Your task to perform on an android device: open wifi settings Image 0: 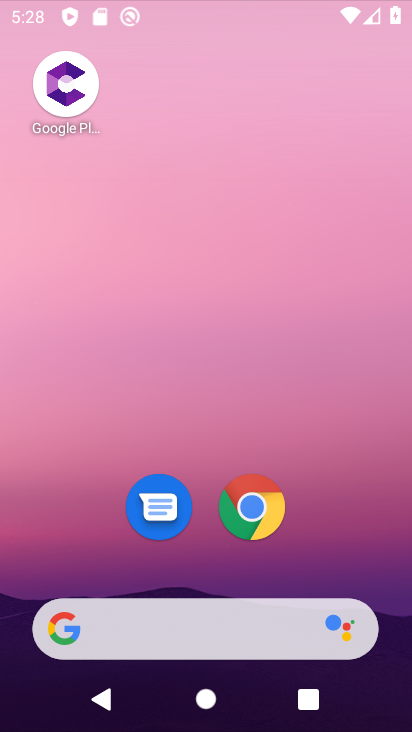
Step 0: press back button
Your task to perform on an android device: open wifi settings Image 1: 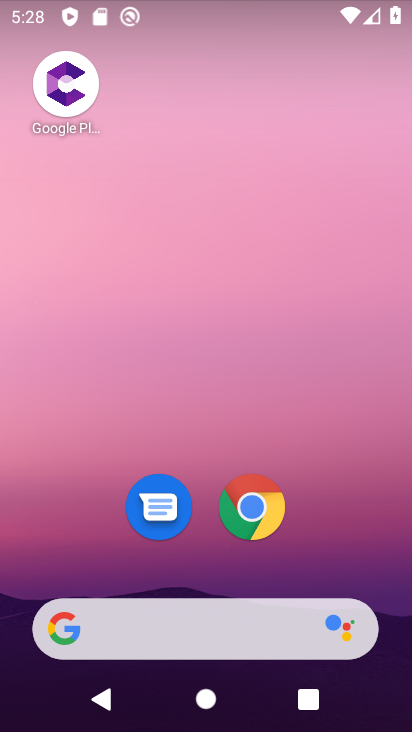
Step 1: drag from (188, 570) to (165, 49)
Your task to perform on an android device: open wifi settings Image 2: 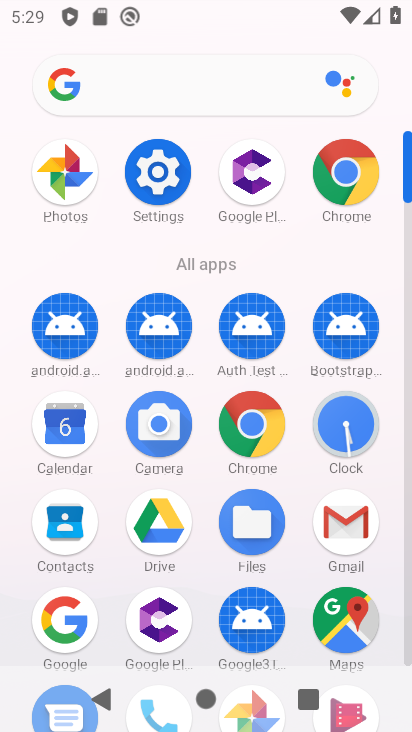
Step 2: click (164, 167)
Your task to perform on an android device: open wifi settings Image 3: 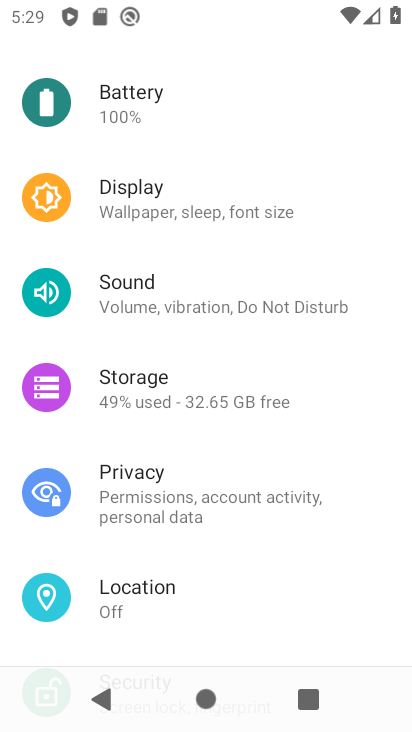
Step 3: drag from (192, 253) to (232, 728)
Your task to perform on an android device: open wifi settings Image 4: 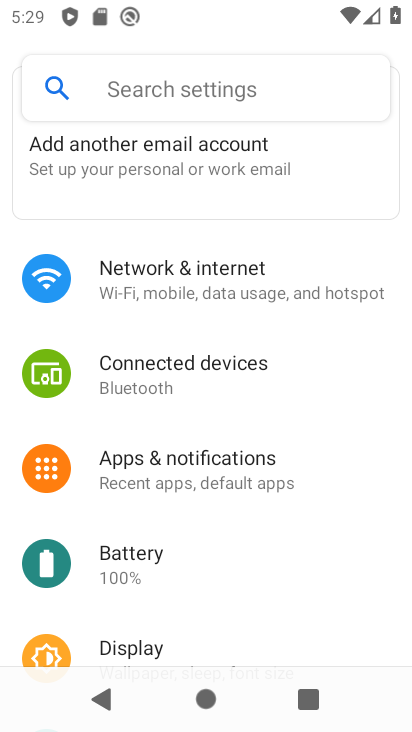
Step 4: click (142, 277)
Your task to perform on an android device: open wifi settings Image 5: 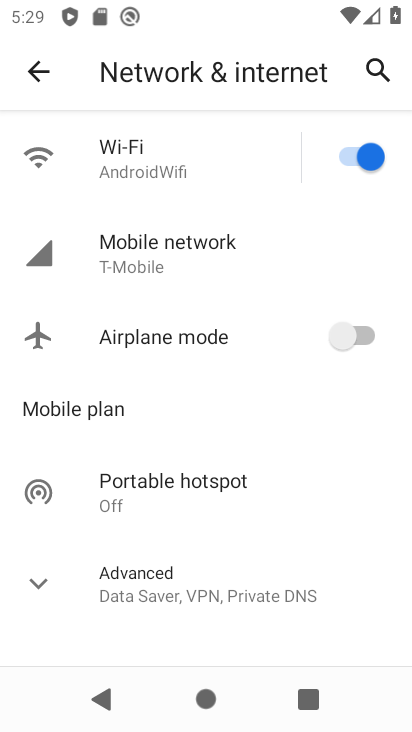
Step 5: click (164, 180)
Your task to perform on an android device: open wifi settings Image 6: 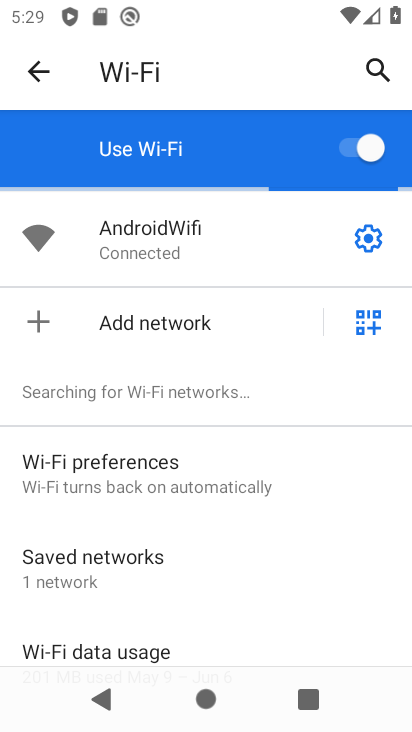
Step 6: task complete